Your task to perform on an android device: toggle improve location accuracy Image 0: 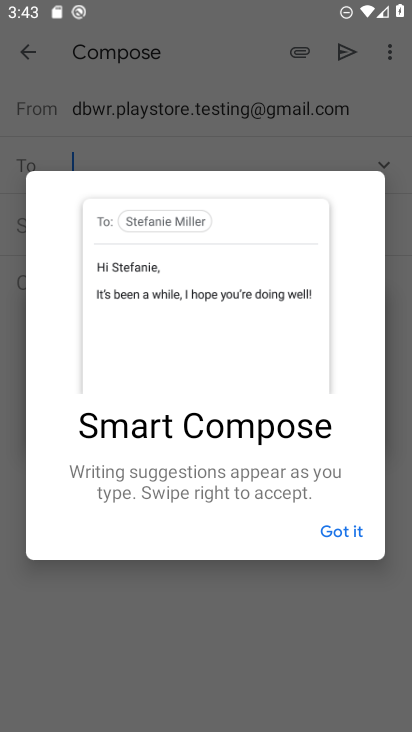
Step 0: press home button
Your task to perform on an android device: toggle improve location accuracy Image 1: 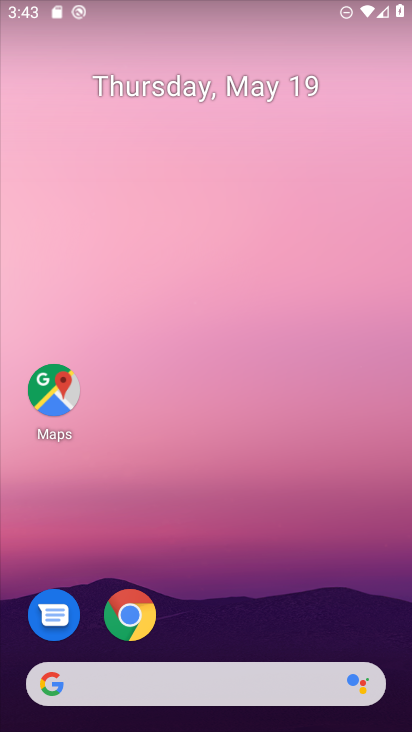
Step 1: drag from (259, 643) to (164, 77)
Your task to perform on an android device: toggle improve location accuracy Image 2: 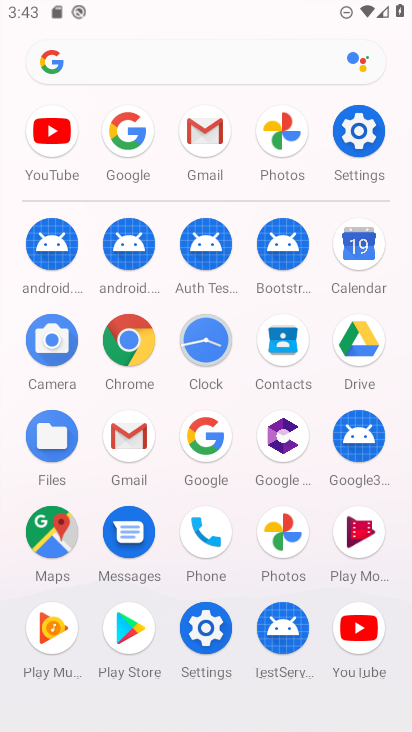
Step 2: click (376, 130)
Your task to perform on an android device: toggle improve location accuracy Image 3: 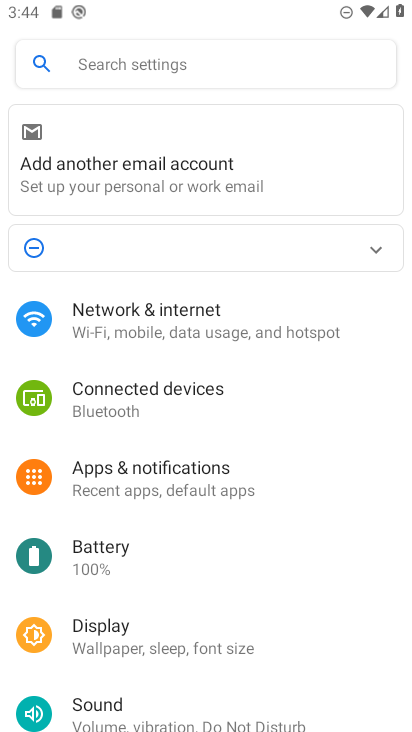
Step 3: drag from (271, 653) to (244, 145)
Your task to perform on an android device: toggle improve location accuracy Image 4: 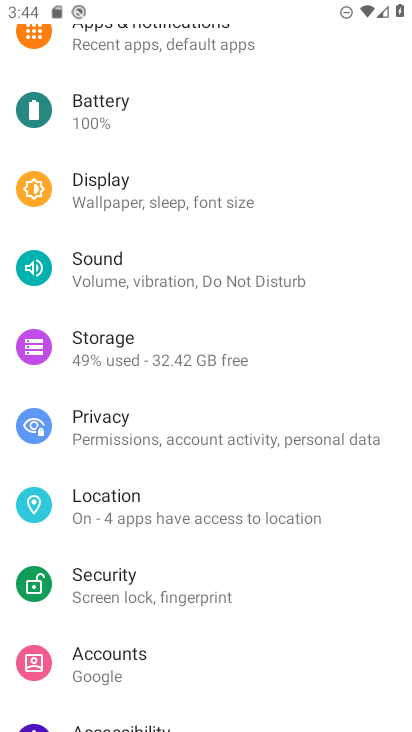
Step 4: click (271, 504)
Your task to perform on an android device: toggle improve location accuracy Image 5: 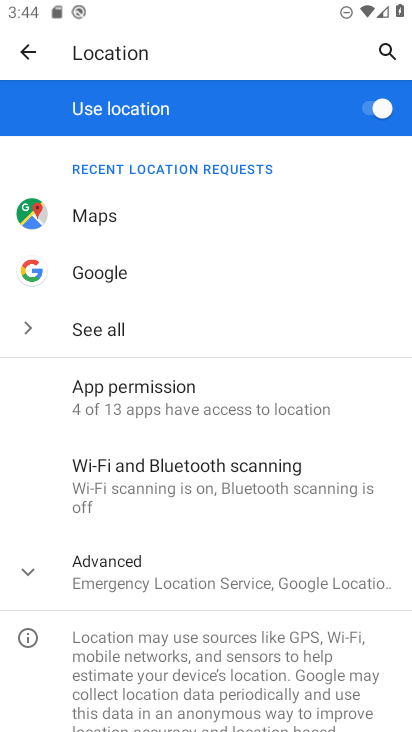
Step 5: click (290, 583)
Your task to perform on an android device: toggle improve location accuracy Image 6: 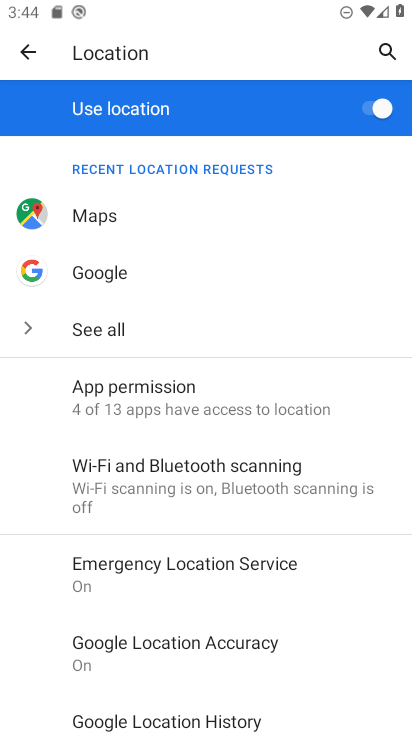
Step 6: click (279, 672)
Your task to perform on an android device: toggle improve location accuracy Image 7: 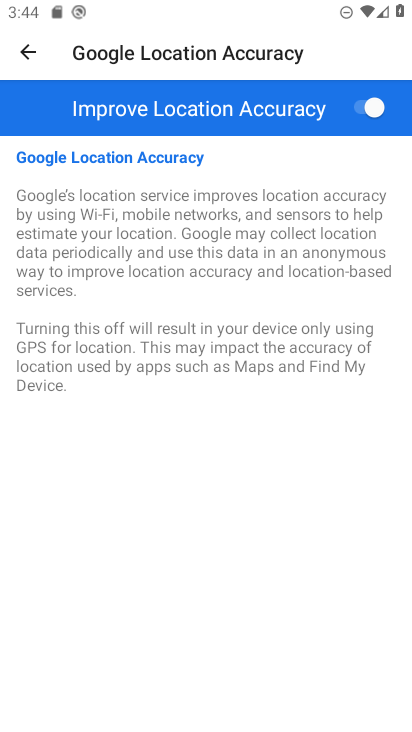
Step 7: click (374, 114)
Your task to perform on an android device: toggle improve location accuracy Image 8: 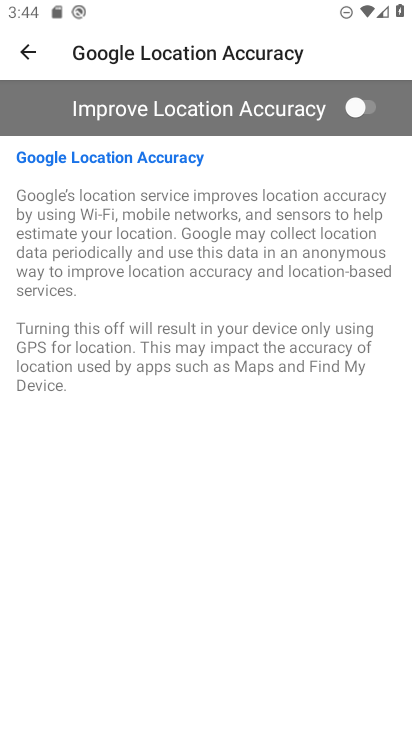
Step 8: task complete